Your task to perform on an android device: open chrome and create a bookmark for the current page Image 0: 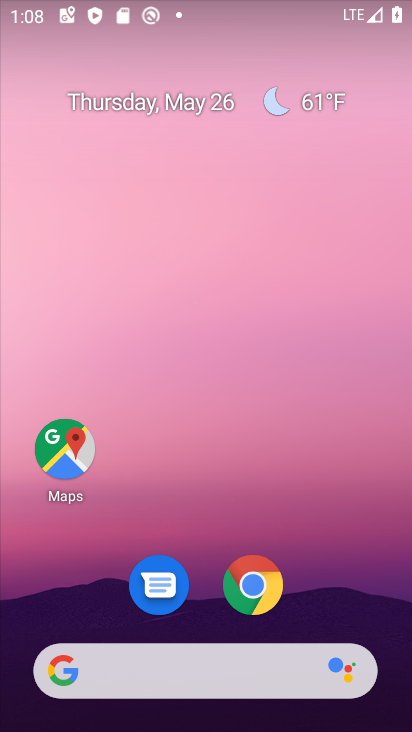
Step 0: click (253, 585)
Your task to perform on an android device: open chrome and create a bookmark for the current page Image 1: 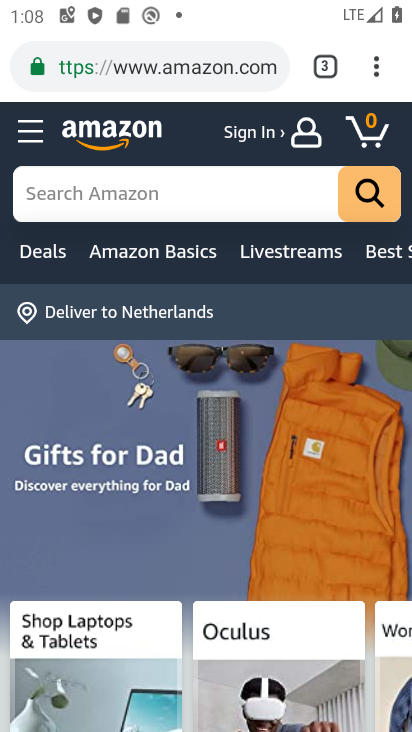
Step 1: click (378, 68)
Your task to perform on an android device: open chrome and create a bookmark for the current page Image 2: 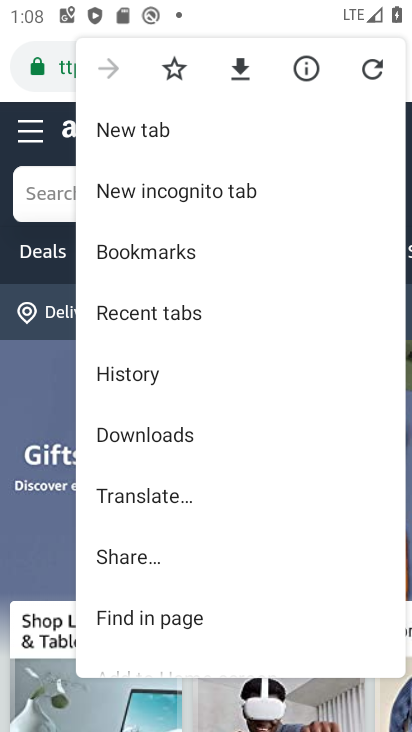
Step 2: click (192, 244)
Your task to perform on an android device: open chrome and create a bookmark for the current page Image 3: 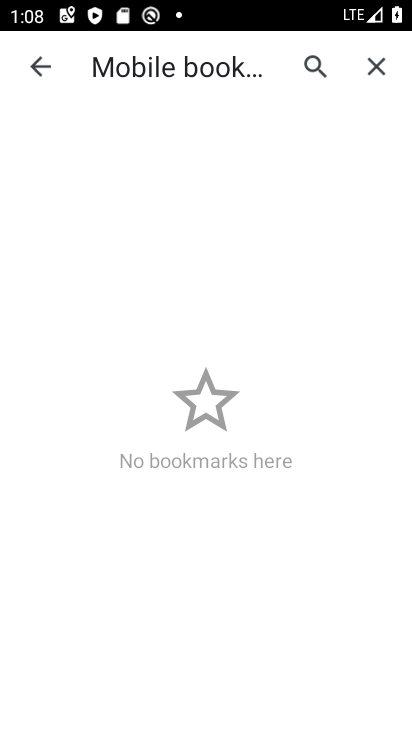
Step 3: click (41, 63)
Your task to perform on an android device: open chrome and create a bookmark for the current page Image 4: 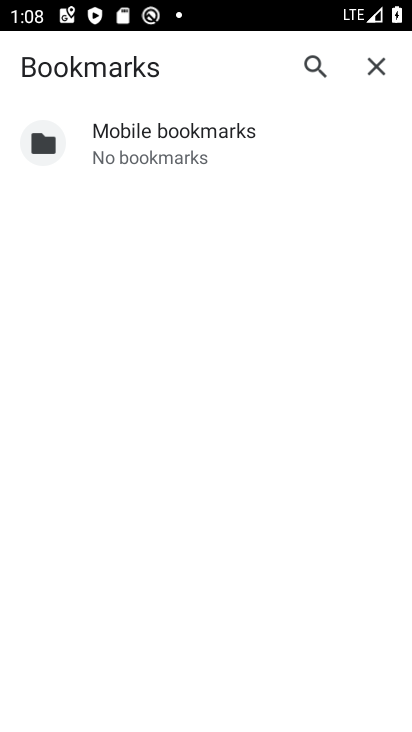
Step 4: click (370, 64)
Your task to perform on an android device: open chrome and create a bookmark for the current page Image 5: 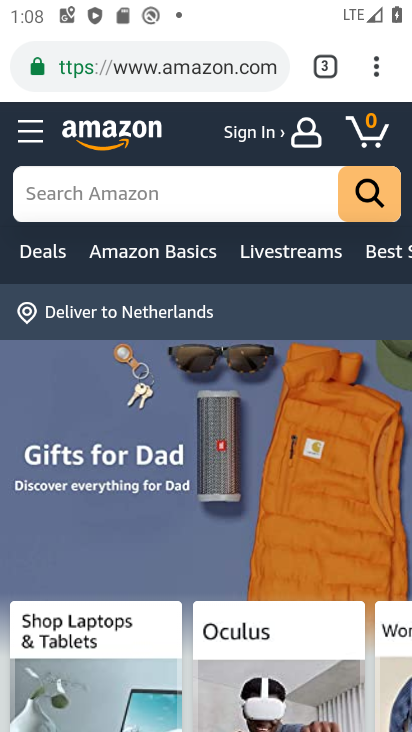
Step 5: click (376, 66)
Your task to perform on an android device: open chrome and create a bookmark for the current page Image 6: 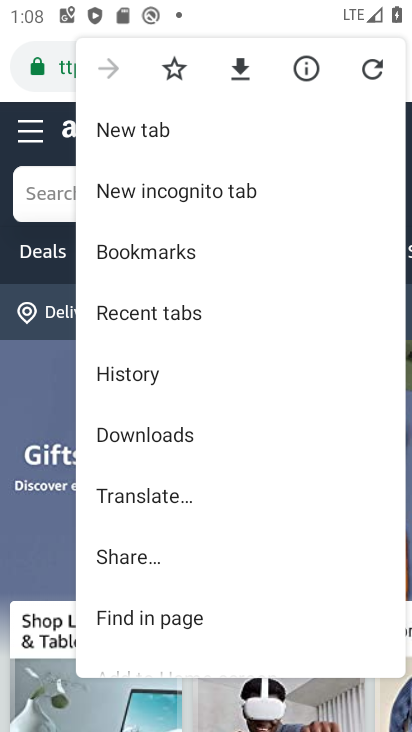
Step 6: click (174, 67)
Your task to perform on an android device: open chrome and create a bookmark for the current page Image 7: 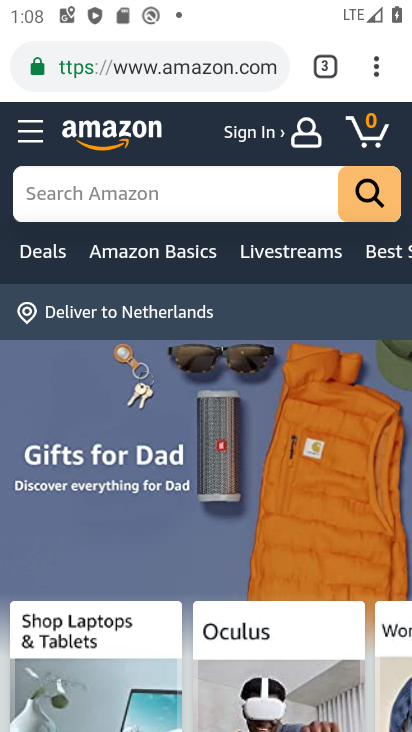
Step 7: task complete